Your task to perform on an android device: Go to settings Image 0: 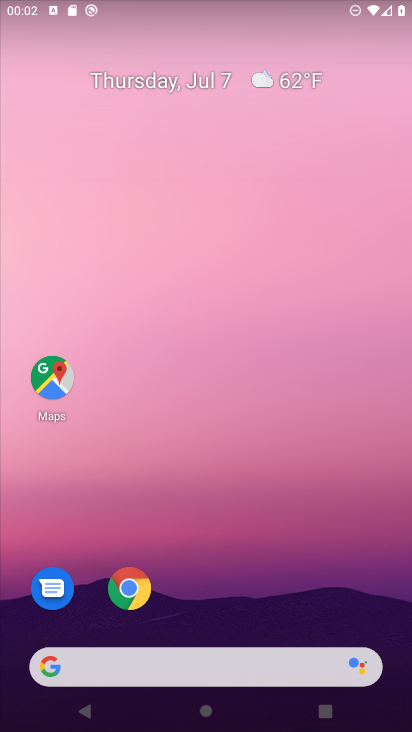
Step 0: drag from (355, 598) to (336, 45)
Your task to perform on an android device: Go to settings Image 1: 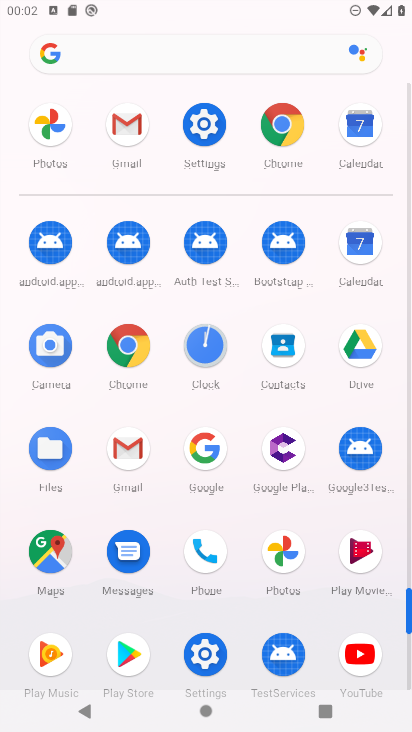
Step 1: click (204, 657)
Your task to perform on an android device: Go to settings Image 2: 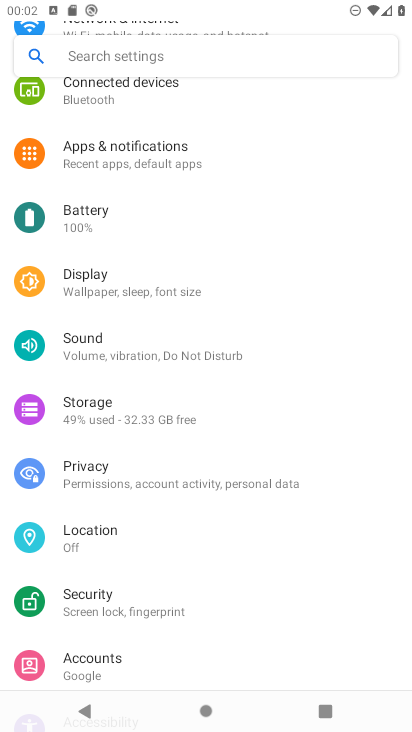
Step 2: task complete